Your task to perform on an android device: check android version Image 0: 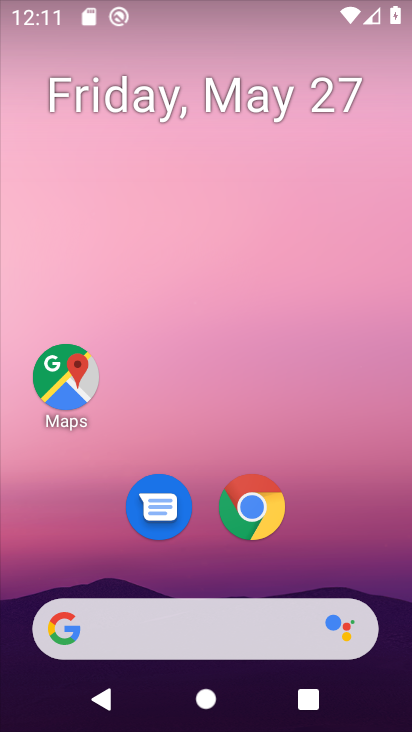
Step 0: drag from (124, 465) to (246, 133)
Your task to perform on an android device: check android version Image 1: 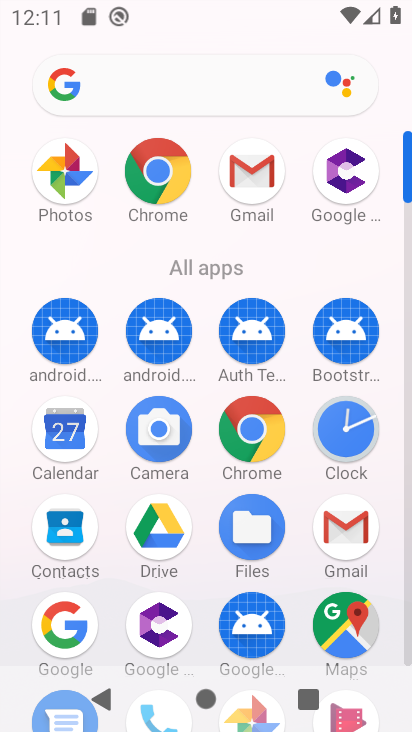
Step 1: drag from (33, 663) to (243, 250)
Your task to perform on an android device: check android version Image 2: 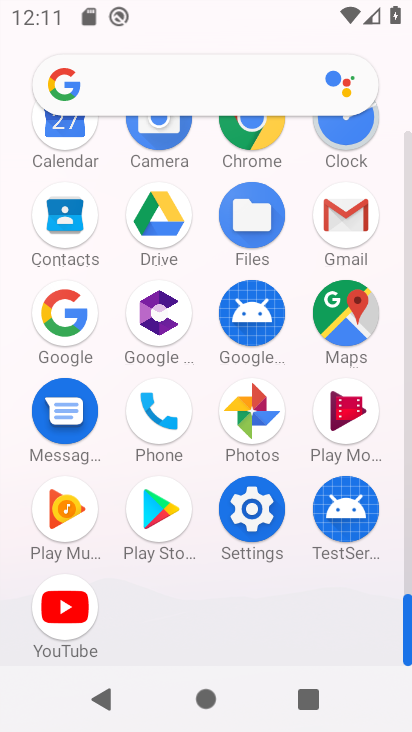
Step 2: click (262, 511)
Your task to perform on an android device: check android version Image 3: 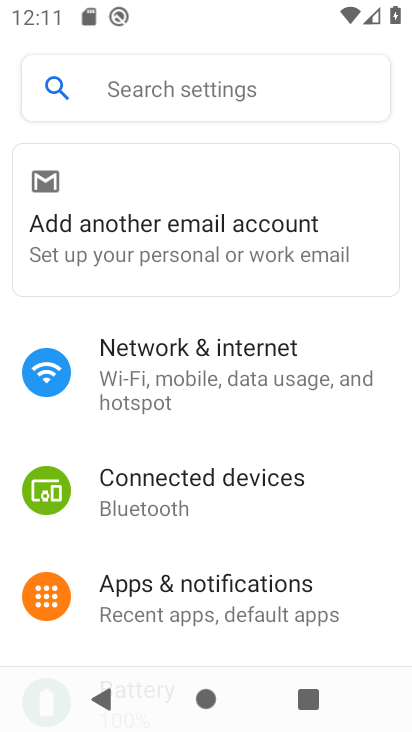
Step 3: drag from (185, 622) to (320, 138)
Your task to perform on an android device: check android version Image 4: 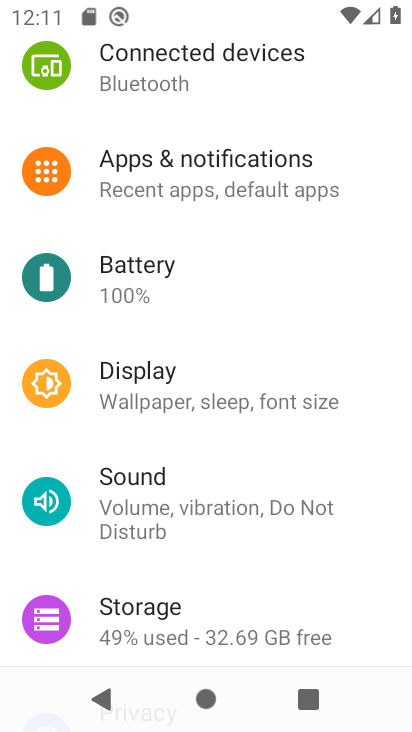
Step 4: drag from (174, 639) to (359, 68)
Your task to perform on an android device: check android version Image 5: 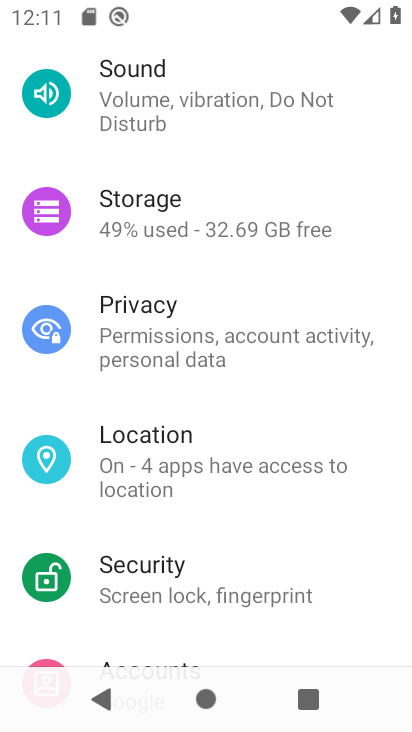
Step 5: drag from (199, 635) to (372, 78)
Your task to perform on an android device: check android version Image 6: 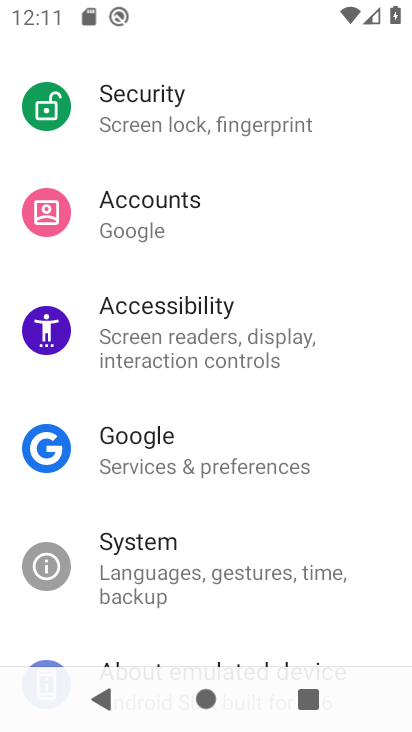
Step 6: drag from (174, 618) to (280, 130)
Your task to perform on an android device: check android version Image 7: 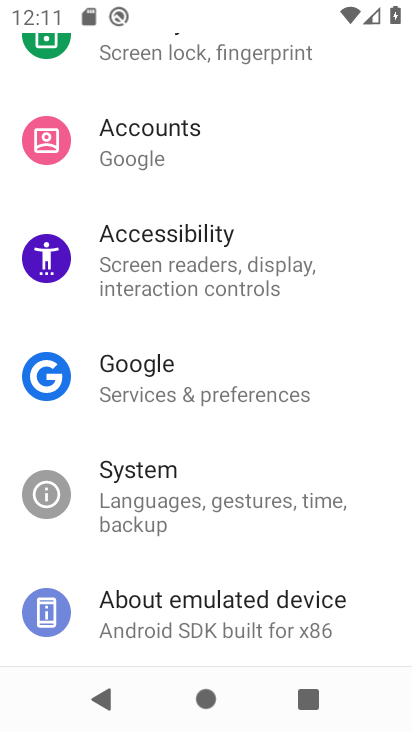
Step 7: click (190, 620)
Your task to perform on an android device: check android version Image 8: 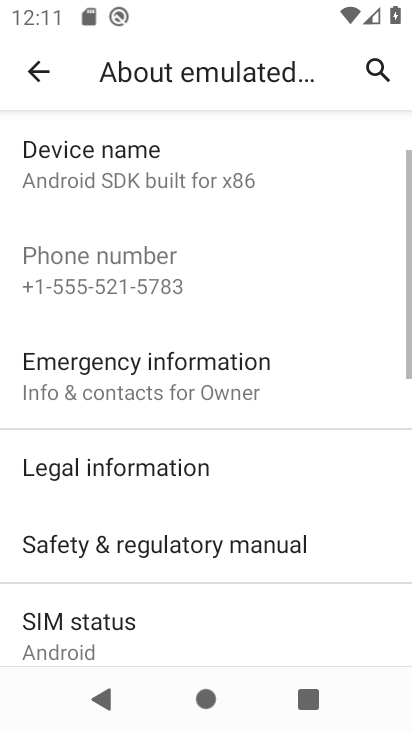
Step 8: drag from (136, 617) to (288, 183)
Your task to perform on an android device: check android version Image 9: 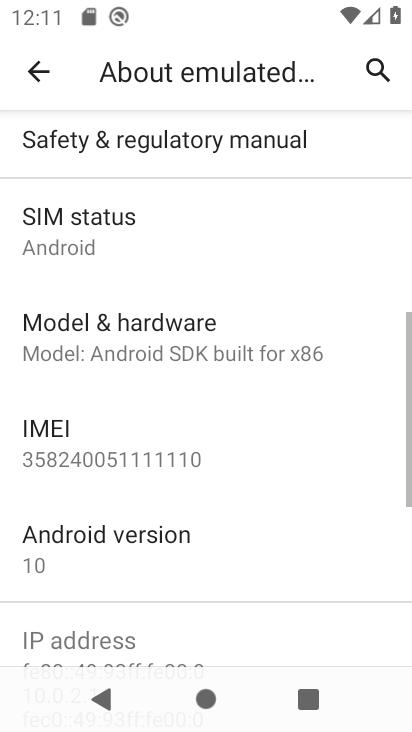
Step 9: click (162, 557)
Your task to perform on an android device: check android version Image 10: 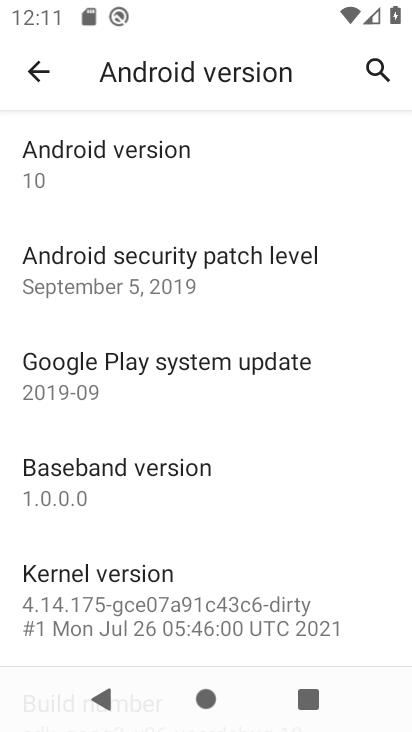
Step 10: task complete